Your task to perform on an android device: turn on javascript in the chrome app Image 0: 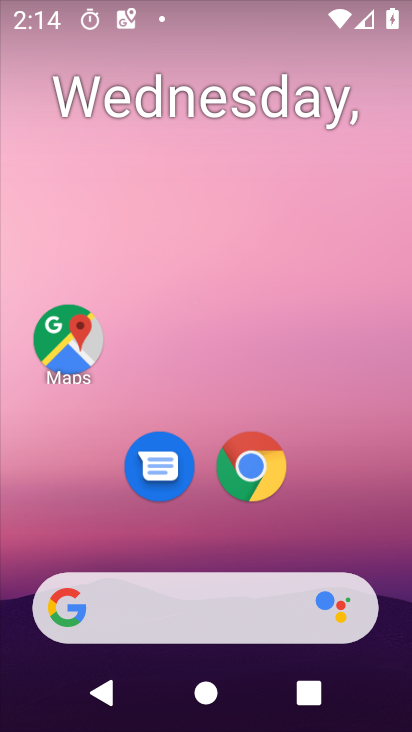
Step 0: click (233, 457)
Your task to perform on an android device: turn on javascript in the chrome app Image 1: 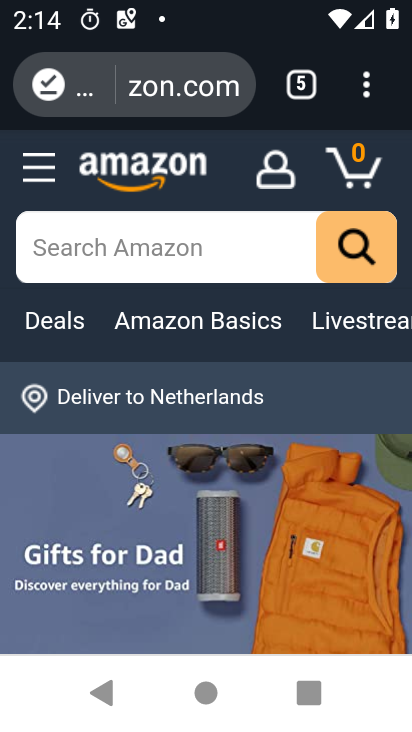
Step 1: click (353, 69)
Your task to perform on an android device: turn on javascript in the chrome app Image 2: 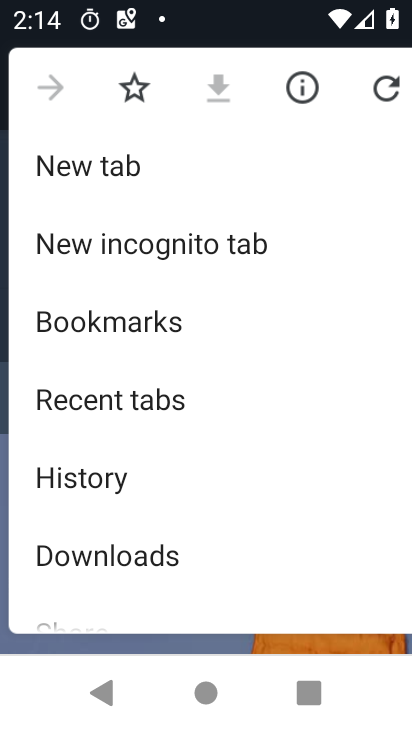
Step 2: drag from (223, 513) to (204, 119)
Your task to perform on an android device: turn on javascript in the chrome app Image 3: 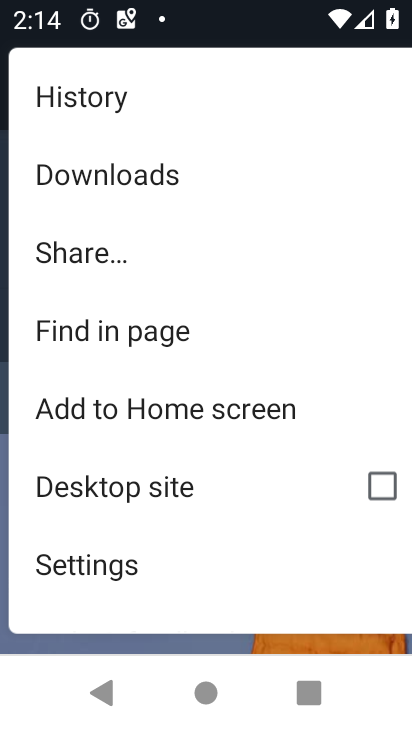
Step 3: drag from (149, 400) to (136, 83)
Your task to perform on an android device: turn on javascript in the chrome app Image 4: 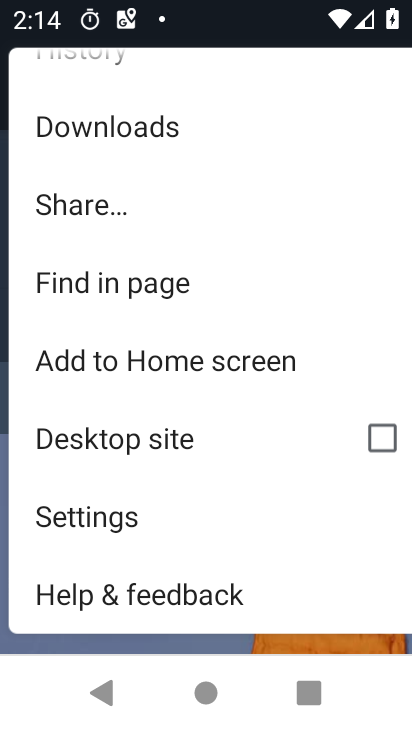
Step 4: click (159, 520)
Your task to perform on an android device: turn on javascript in the chrome app Image 5: 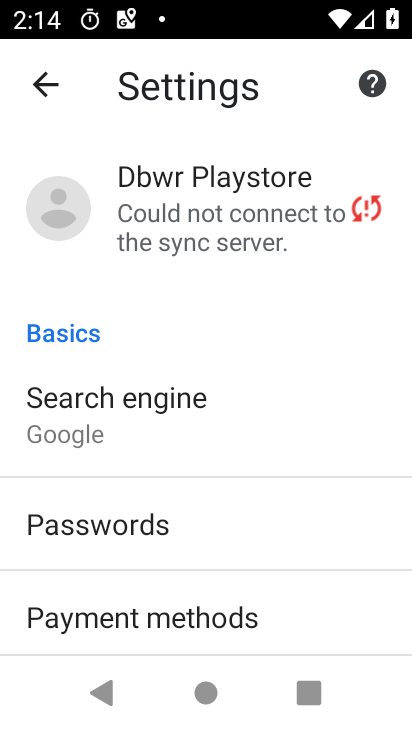
Step 5: drag from (187, 539) to (184, 203)
Your task to perform on an android device: turn on javascript in the chrome app Image 6: 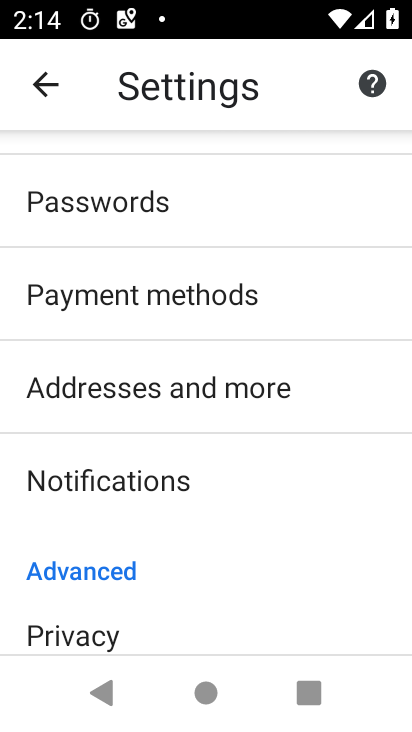
Step 6: drag from (132, 561) to (145, 220)
Your task to perform on an android device: turn on javascript in the chrome app Image 7: 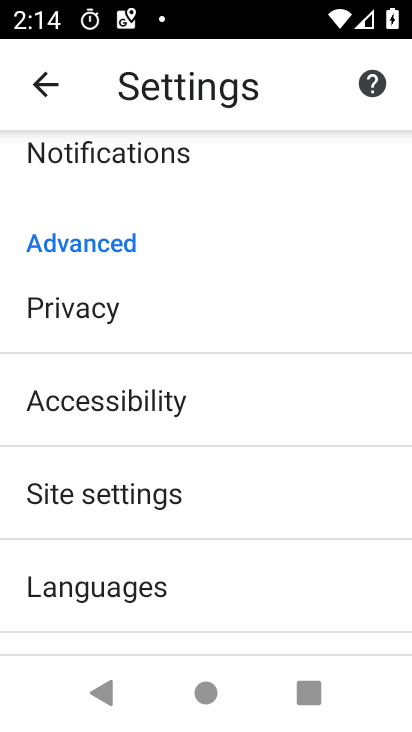
Step 7: click (133, 496)
Your task to perform on an android device: turn on javascript in the chrome app Image 8: 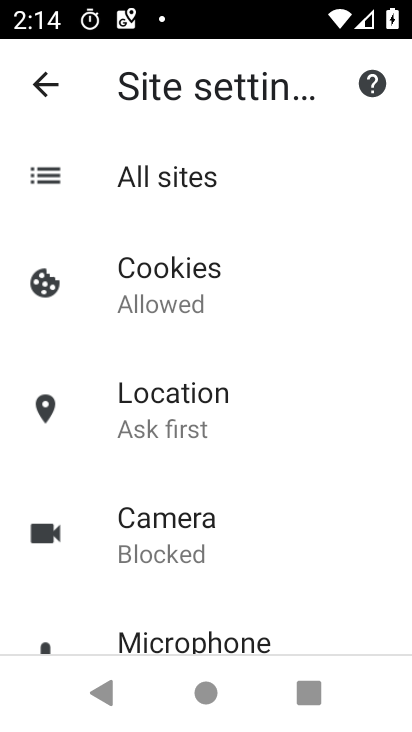
Step 8: drag from (233, 543) to (235, 183)
Your task to perform on an android device: turn on javascript in the chrome app Image 9: 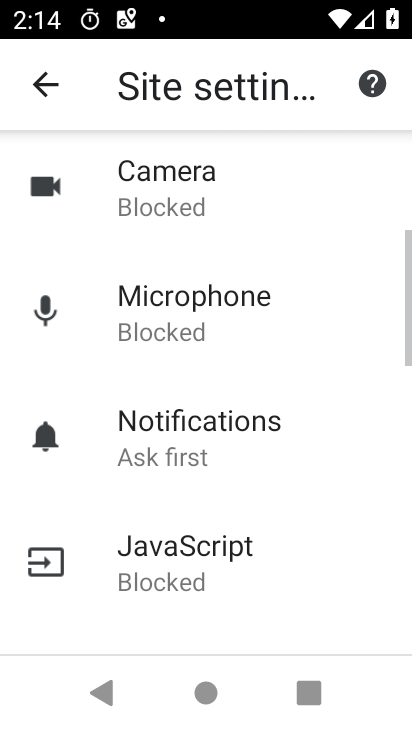
Step 9: click (223, 539)
Your task to perform on an android device: turn on javascript in the chrome app Image 10: 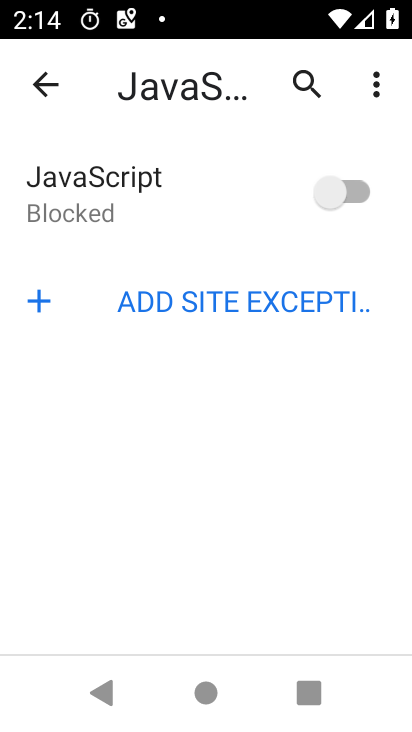
Step 10: click (326, 182)
Your task to perform on an android device: turn on javascript in the chrome app Image 11: 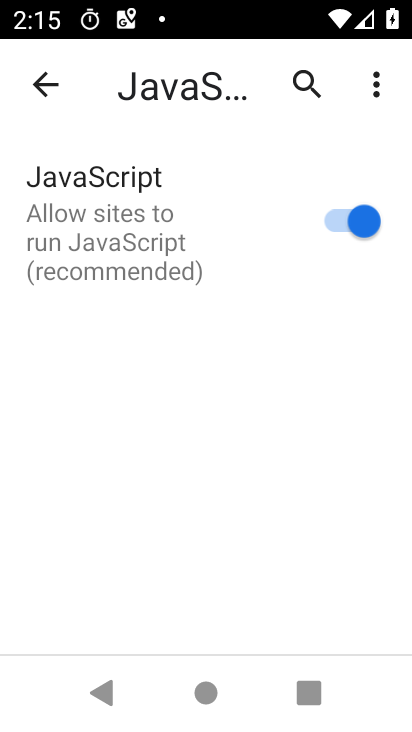
Step 11: task complete